Your task to perform on an android device: open wifi settings Image 0: 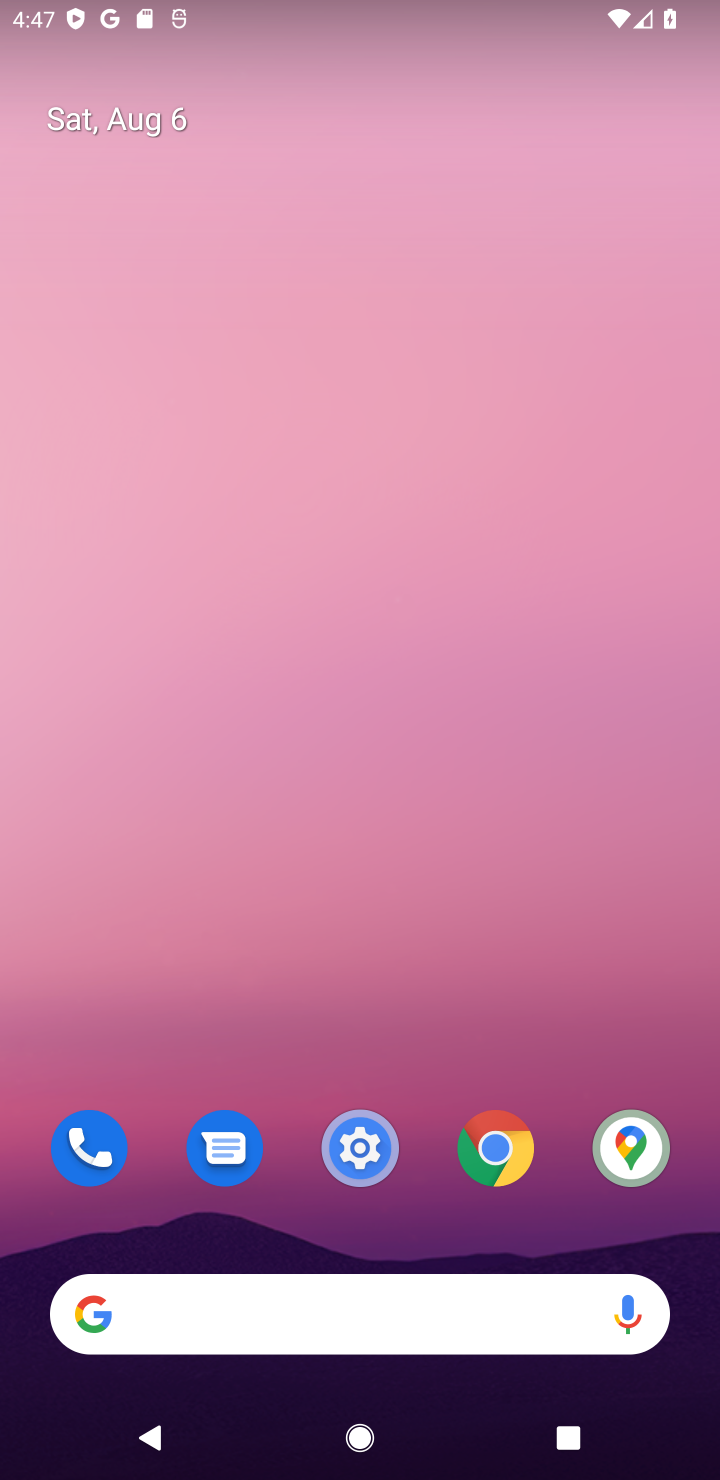
Step 0: click (376, 1114)
Your task to perform on an android device: open wifi settings Image 1: 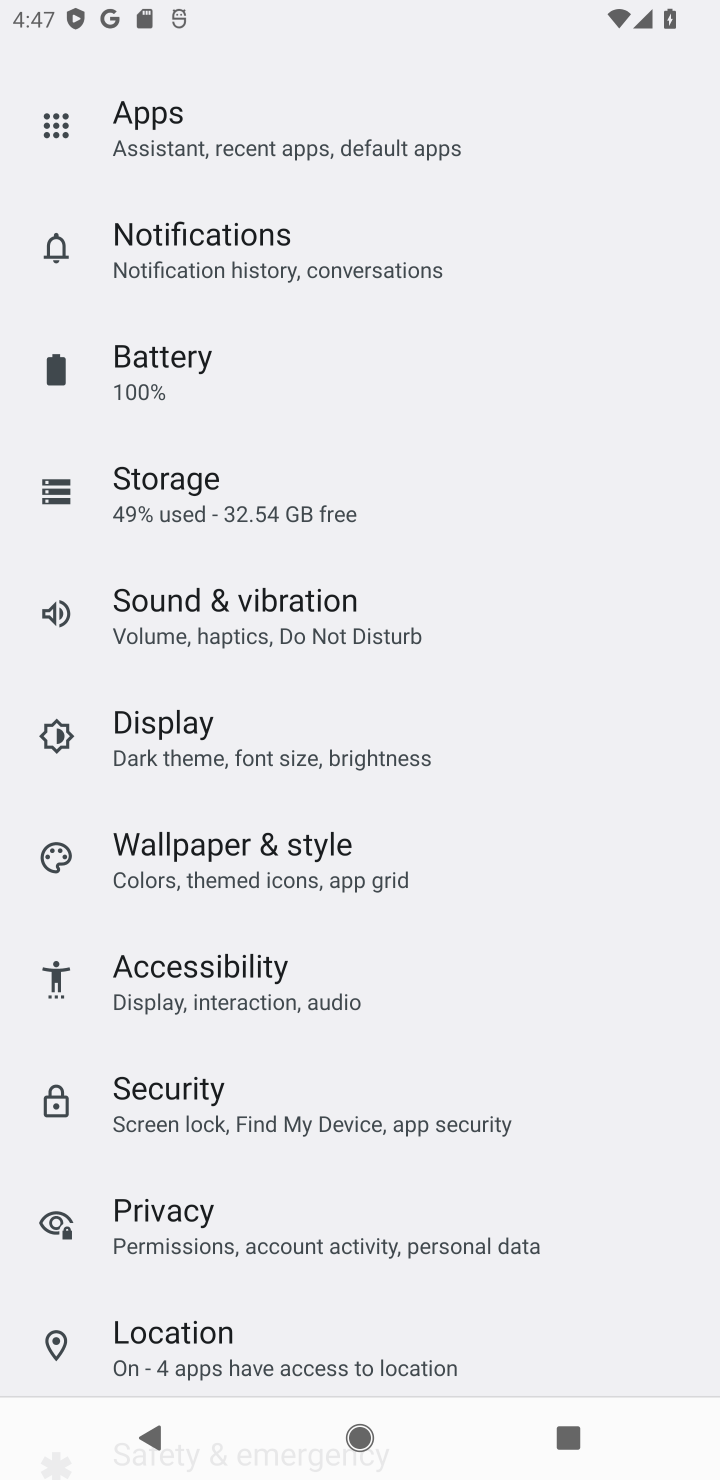
Step 1: drag from (361, 656) to (210, 1462)
Your task to perform on an android device: open wifi settings Image 2: 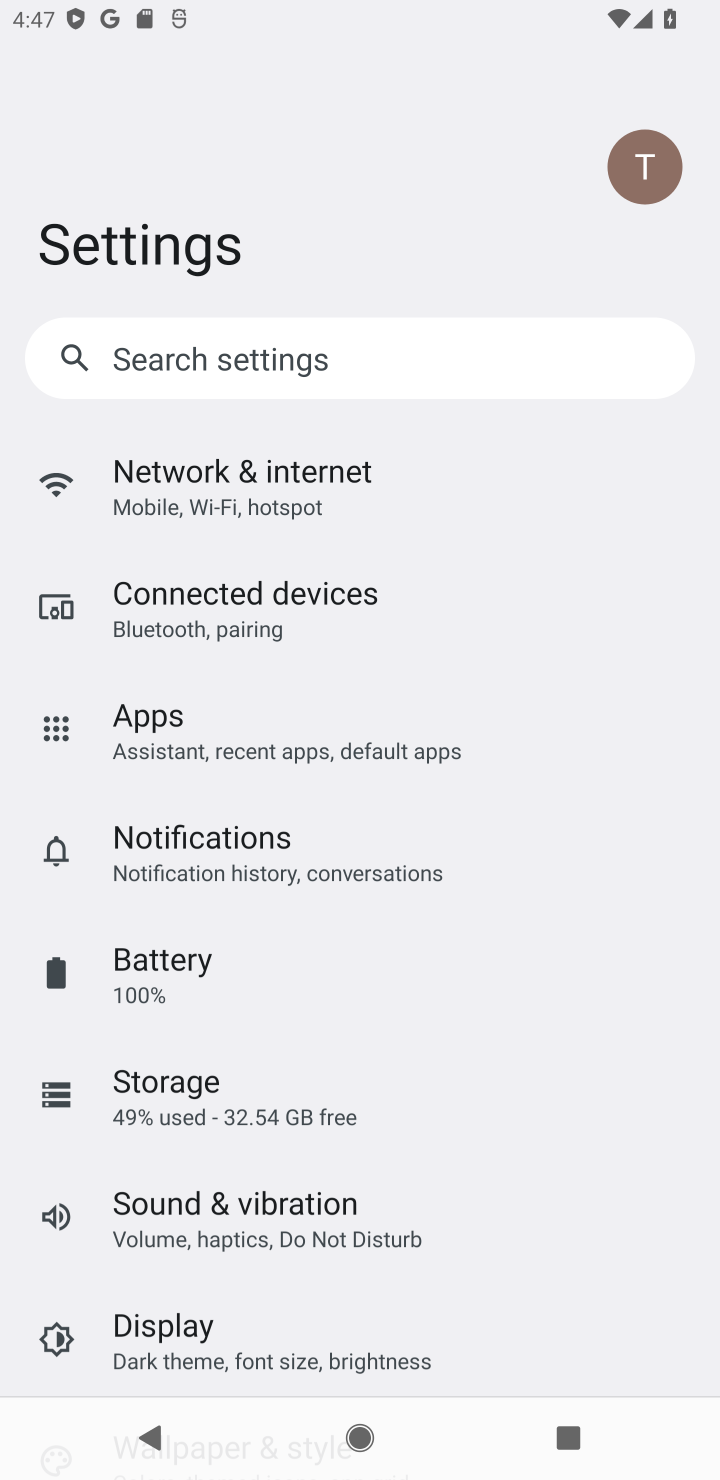
Step 2: click (192, 464)
Your task to perform on an android device: open wifi settings Image 3: 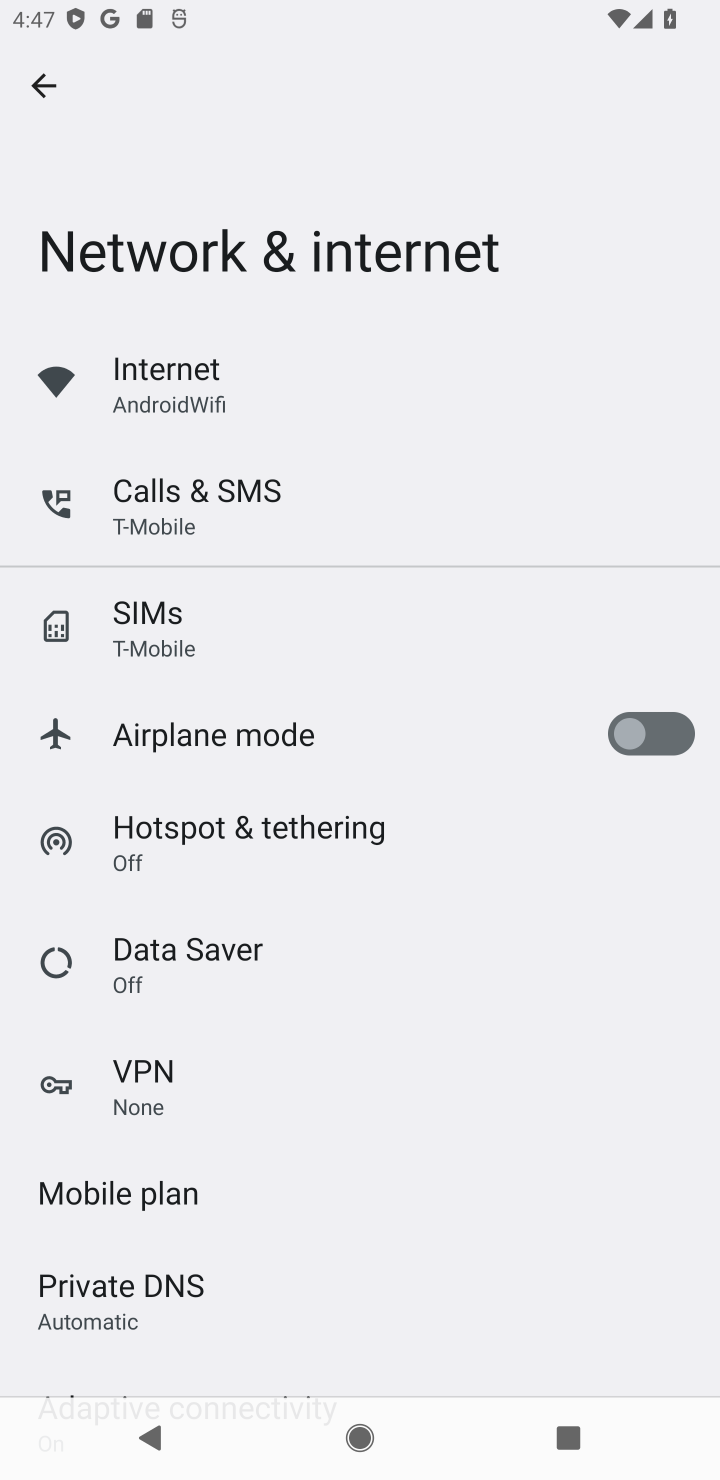
Step 3: click (172, 423)
Your task to perform on an android device: open wifi settings Image 4: 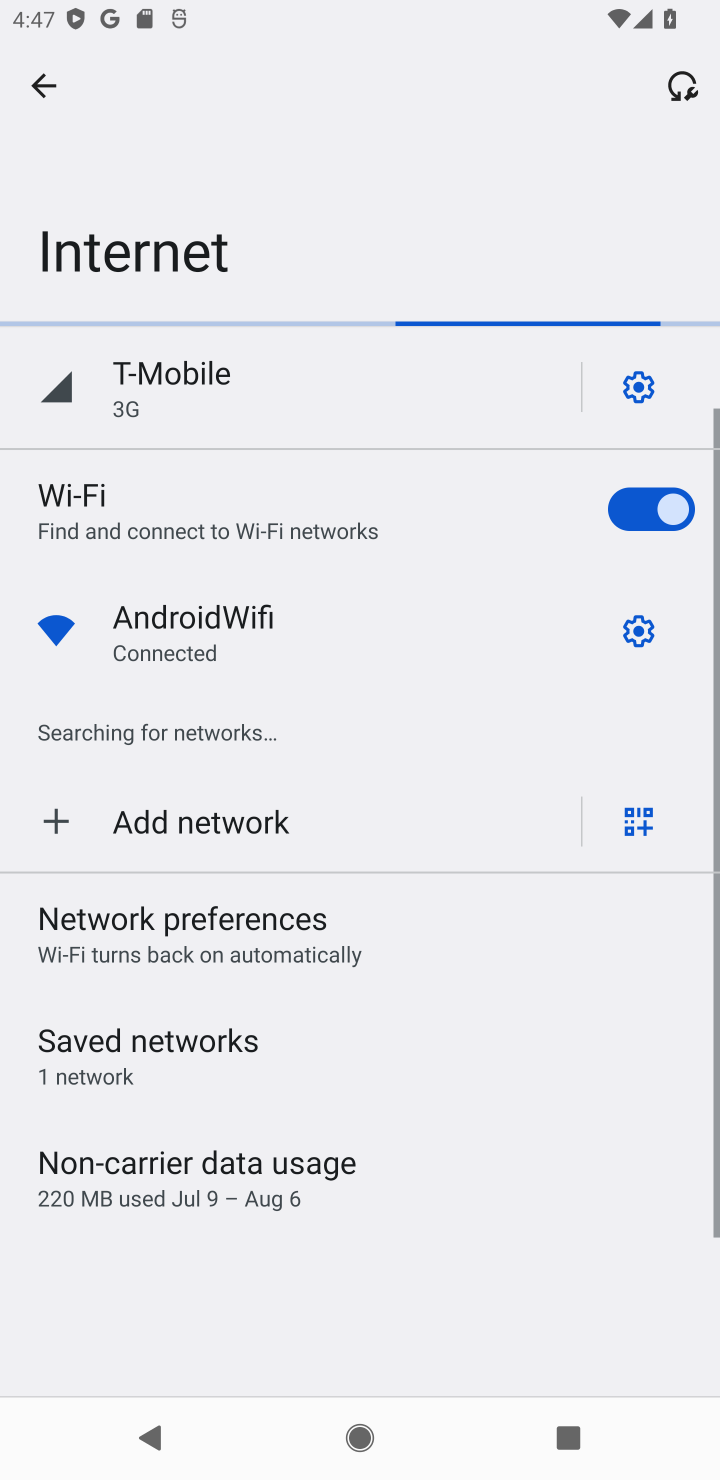
Step 4: task complete